Your task to perform on an android device: Open the Play Movies app and select the watchlist tab. Image 0: 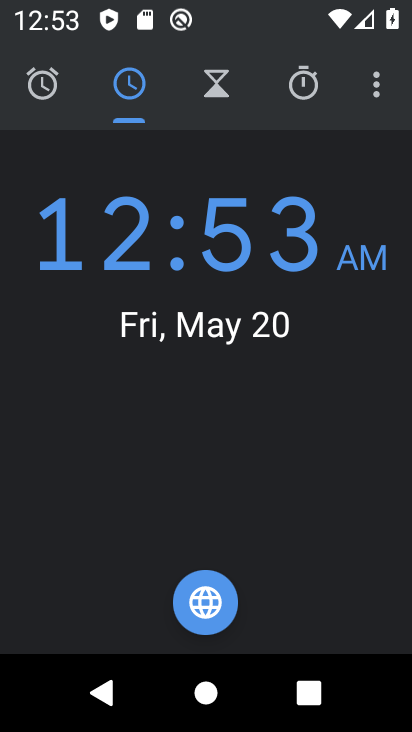
Step 0: press home button
Your task to perform on an android device: Open the Play Movies app and select the watchlist tab. Image 1: 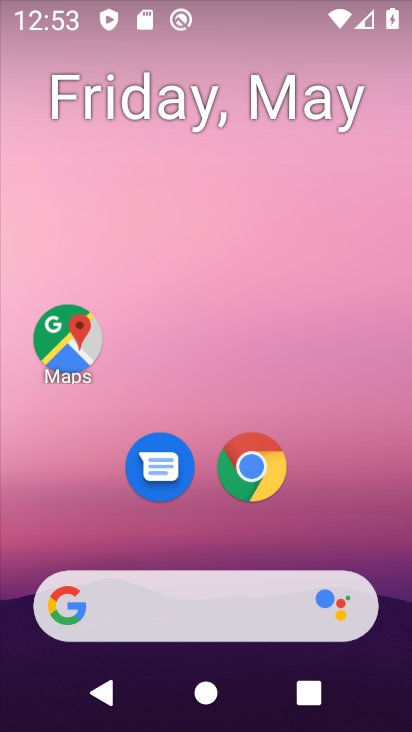
Step 1: drag from (269, 654) to (283, 149)
Your task to perform on an android device: Open the Play Movies app and select the watchlist tab. Image 2: 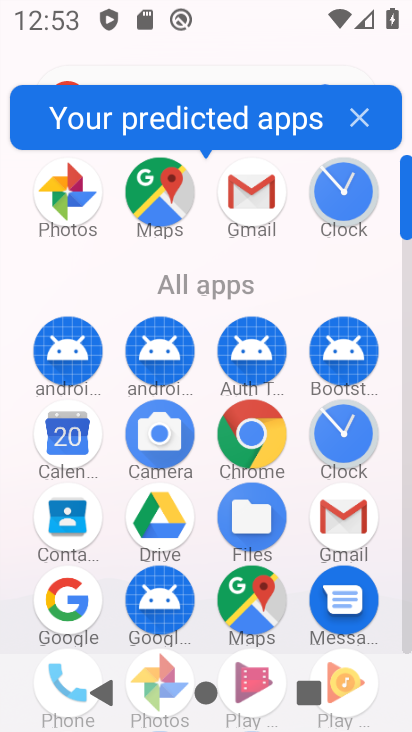
Step 2: drag from (203, 563) to (200, 432)
Your task to perform on an android device: Open the Play Movies app and select the watchlist tab. Image 3: 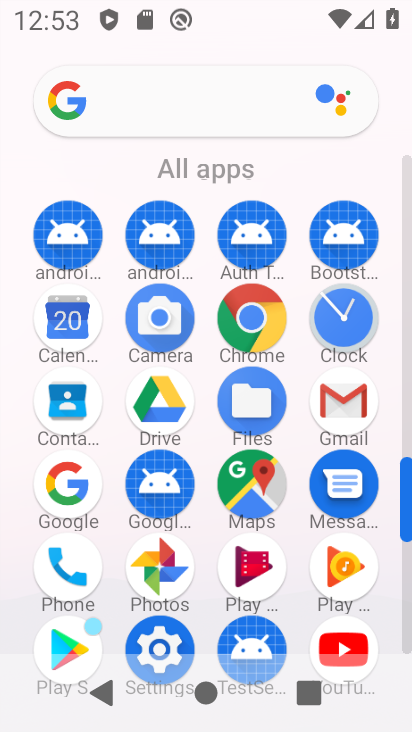
Step 3: click (261, 557)
Your task to perform on an android device: Open the Play Movies app and select the watchlist tab. Image 4: 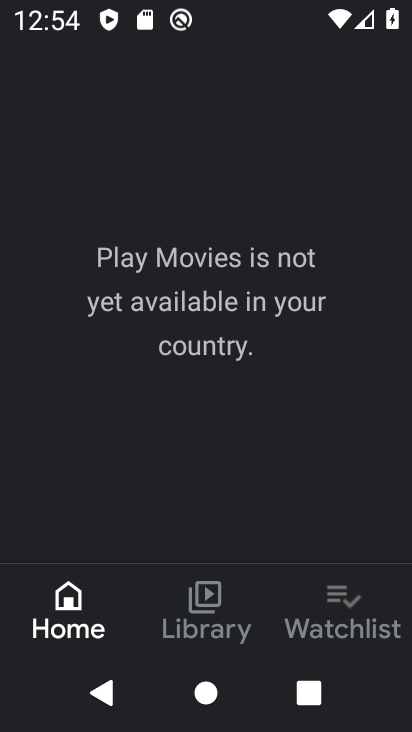
Step 4: click (311, 620)
Your task to perform on an android device: Open the Play Movies app and select the watchlist tab. Image 5: 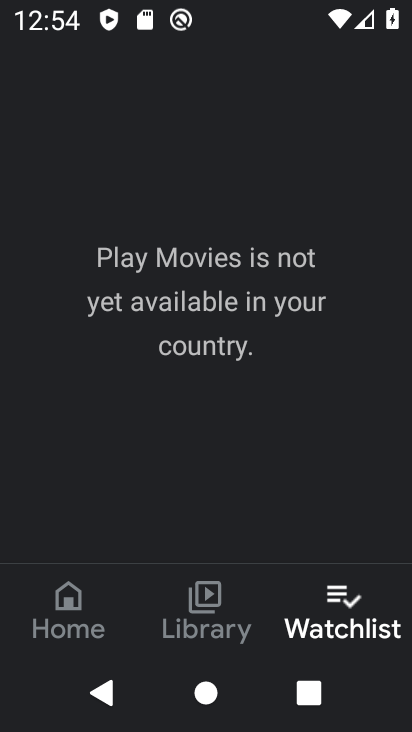
Step 5: task complete